Your task to perform on an android device: turn vacation reply on in the gmail app Image 0: 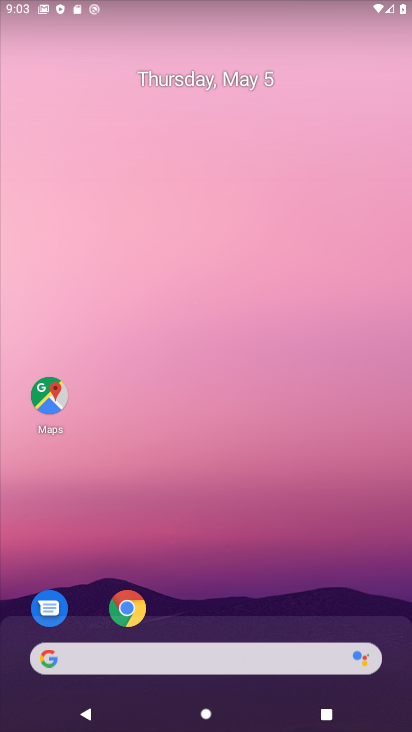
Step 0: drag from (210, 651) to (165, 327)
Your task to perform on an android device: turn vacation reply on in the gmail app Image 1: 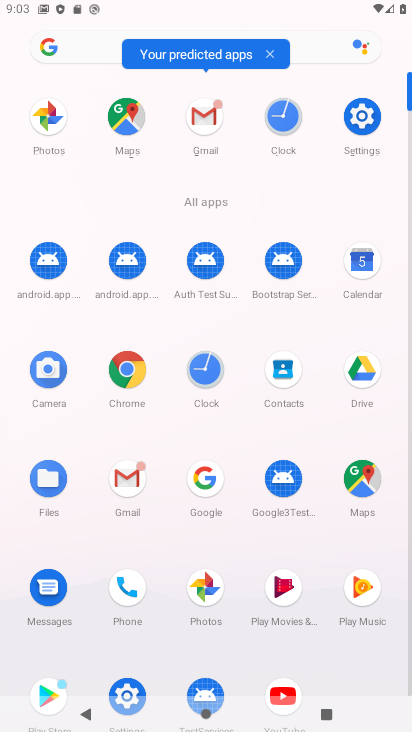
Step 1: click (215, 125)
Your task to perform on an android device: turn vacation reply on in the gmail app Image 2: 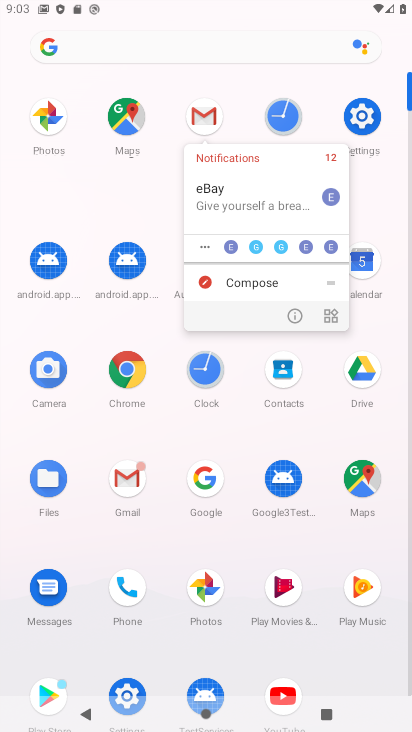
Step 2: click (203, 117)
Your task to perform on an android device: turn vacation reply on in the gmail app Image 3: 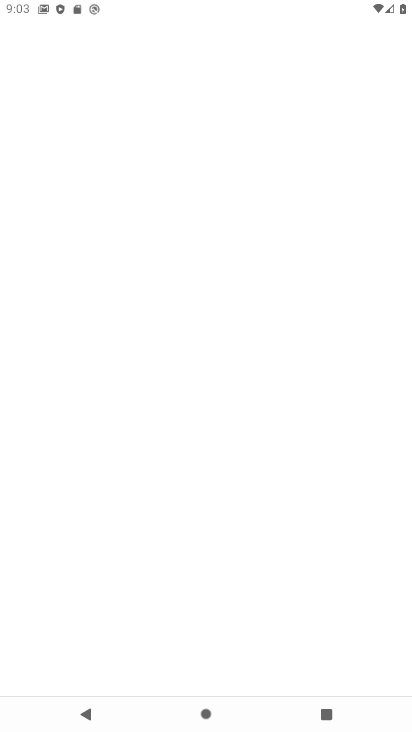
Step 3: click (203, 117)
Your task to perform on an android device: turn vacation reply on in the gmail app Image 4: 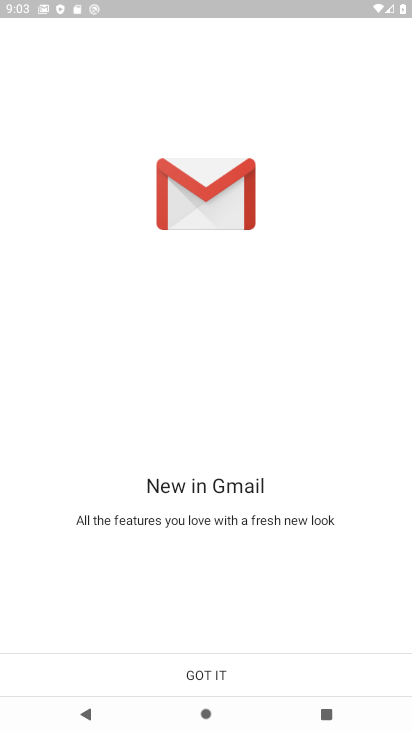
Step 4: click (214, 674)
Your task to perform on an android device: turn vacation reply on in the gmail app Image 5: 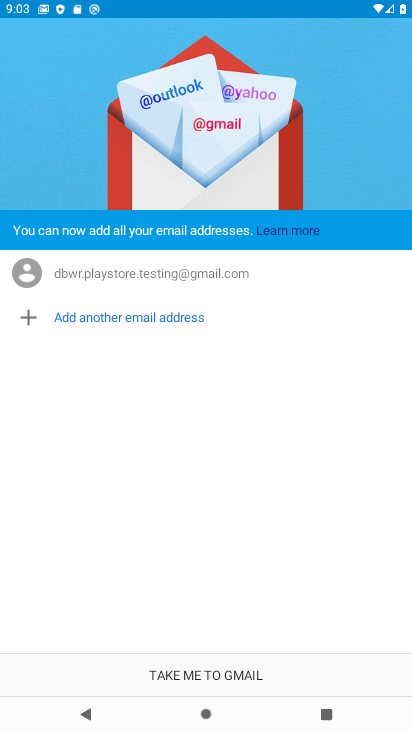
Step 5: click (212, 670)
Your task to perform on an android device: turn vacation reply on in the gmail app Image 6: 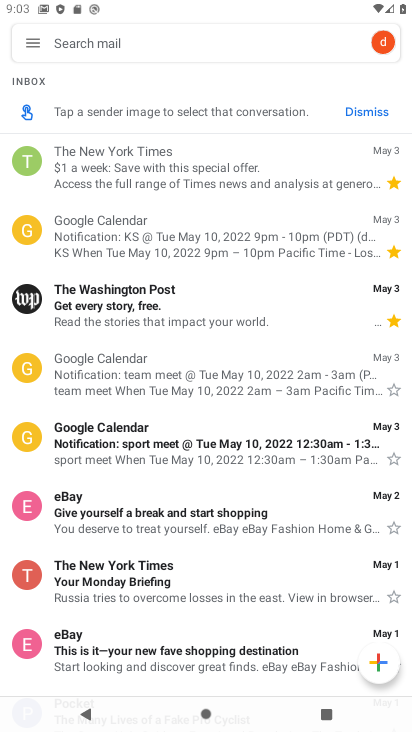
Step 6: click (38, 45)
Your task to perform on an android device: turn vacation reply on in the gmail app Image 7: 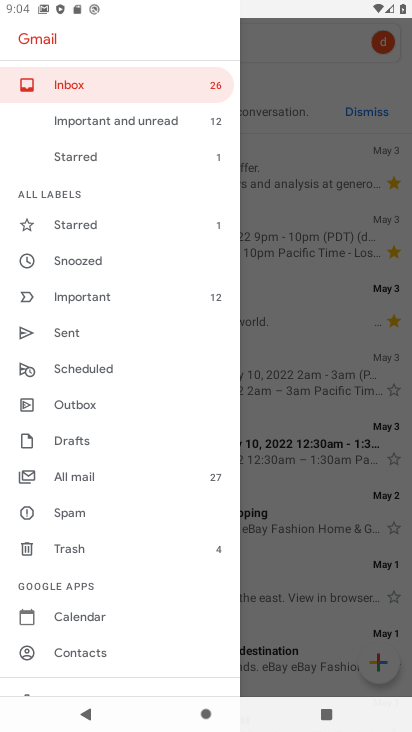
Step 7: drag from (71, 634) to (56, 392)
Your task to perform on an android device: turn vacation reply on in the gmail app Image 8: 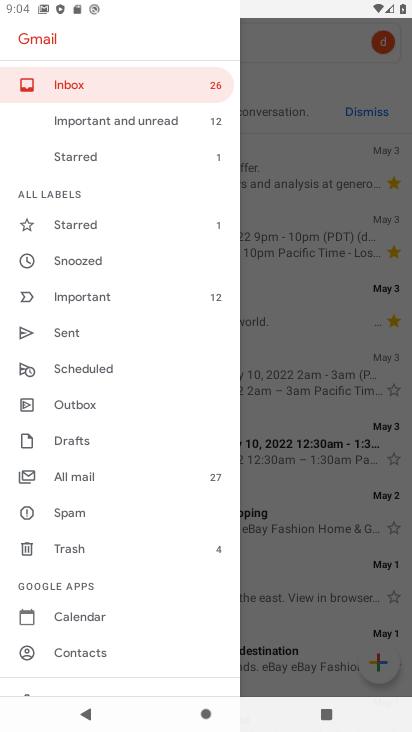
Step 8: drag from (123, 649) to (160, 332)
Your task to perform on an android device: turn vacation reply on in the gmail app Image 9: 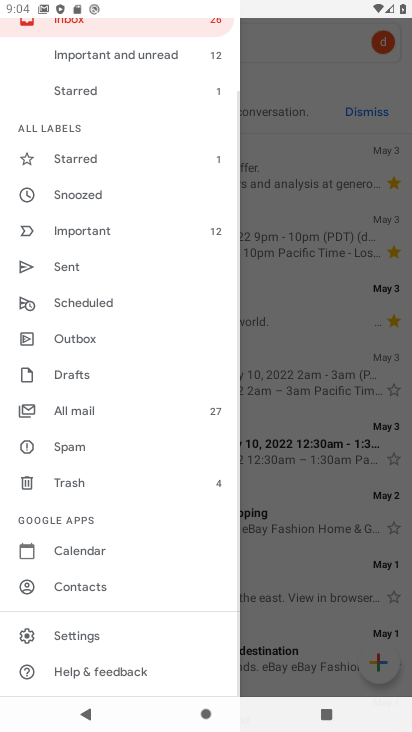
Step 9: click (69, 635)
Your task to perform on an android device: turn vacation reply on in the gmail app Image 10: 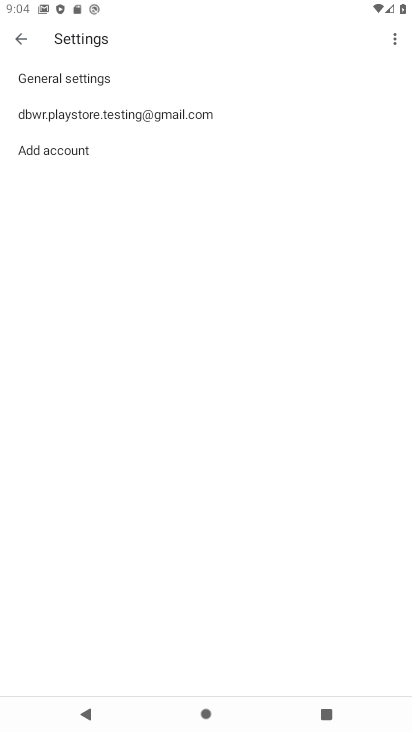
Step 10: click (135, 111)
Your task to perform on an android device: turn vacation reply on in the gmail app Image 11: 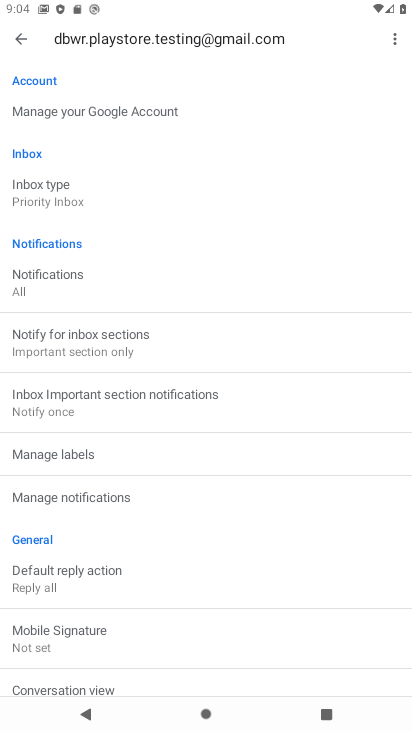
Step 11: click (57, 200)
Your task to perform on an android device: turn vacation reply on in the gmail app Image 12: 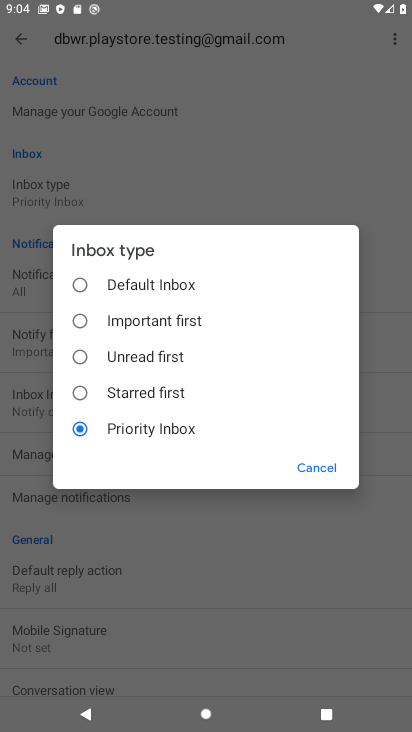
Step 12: click (189, 172)
Your task to perform on an android device: turn vacation reply on in the gmail app Image 13: 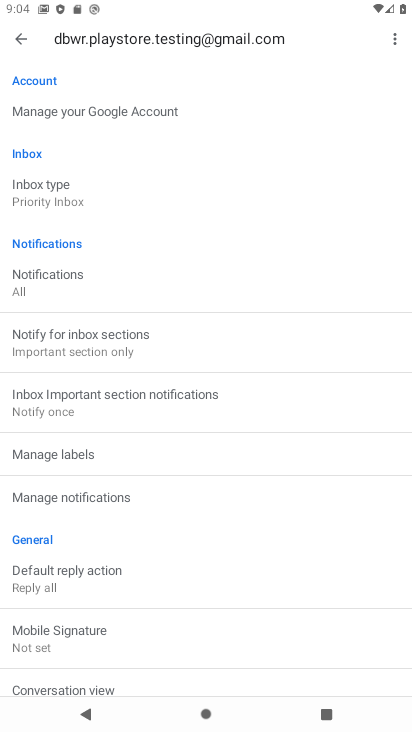
Step 13: drag from (218, 615) to (196, 268)
Your task to perform on an android device: turn vacation reply on in the gmail app Image 14: 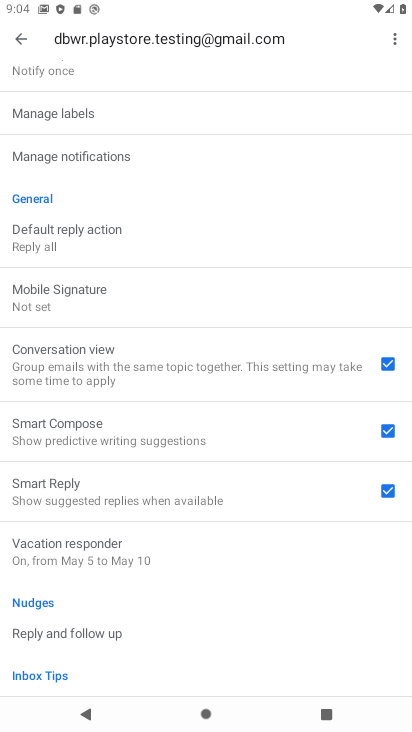
Step 14: drag from (143, 621) to (175, 289)
Your task to perform on an android device: turn vacation reply on in the gmail app Image 15: 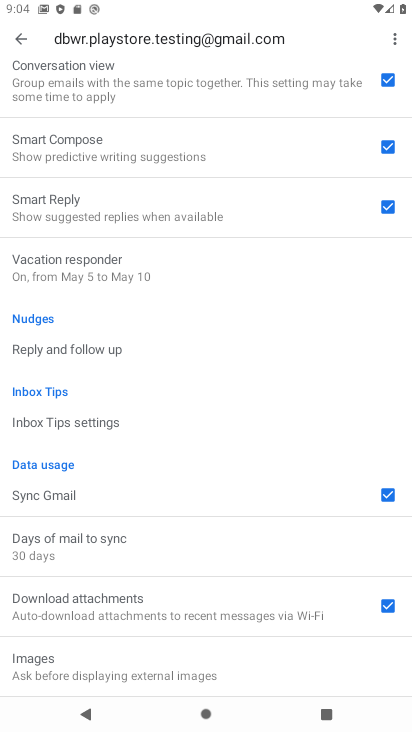
Step 15: click (101, 277)
Your task to perform on an android device: turn vacation reply on in the gmail app Image 16: 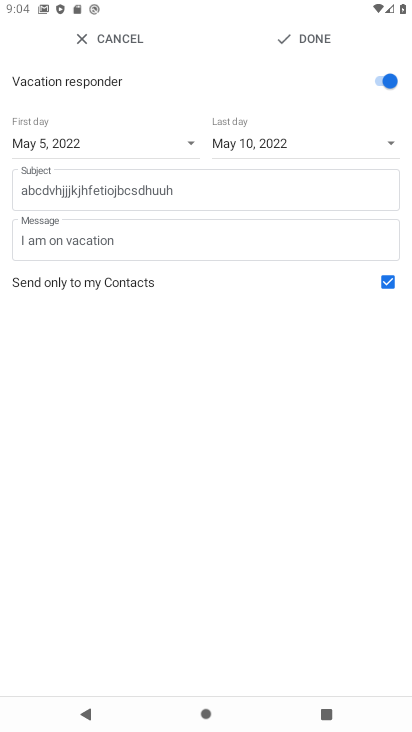
Step 16: click (321, 35)
Your task to perform on an android device: turn vacation reply on in the gmail app Image 17: 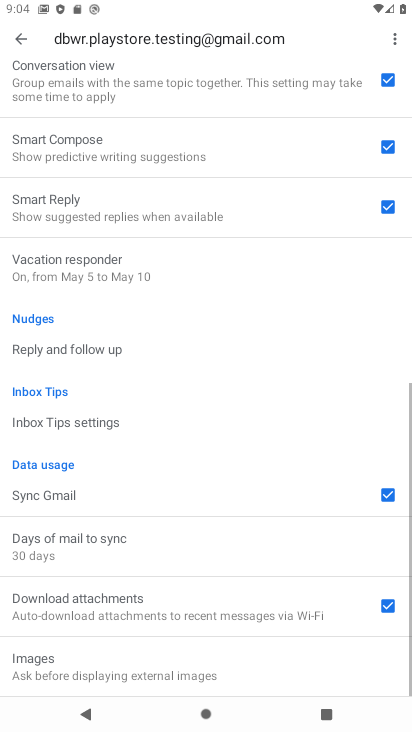
Step 17: task complete